Your task to perform on an android device: turn notification dots on Image 0: 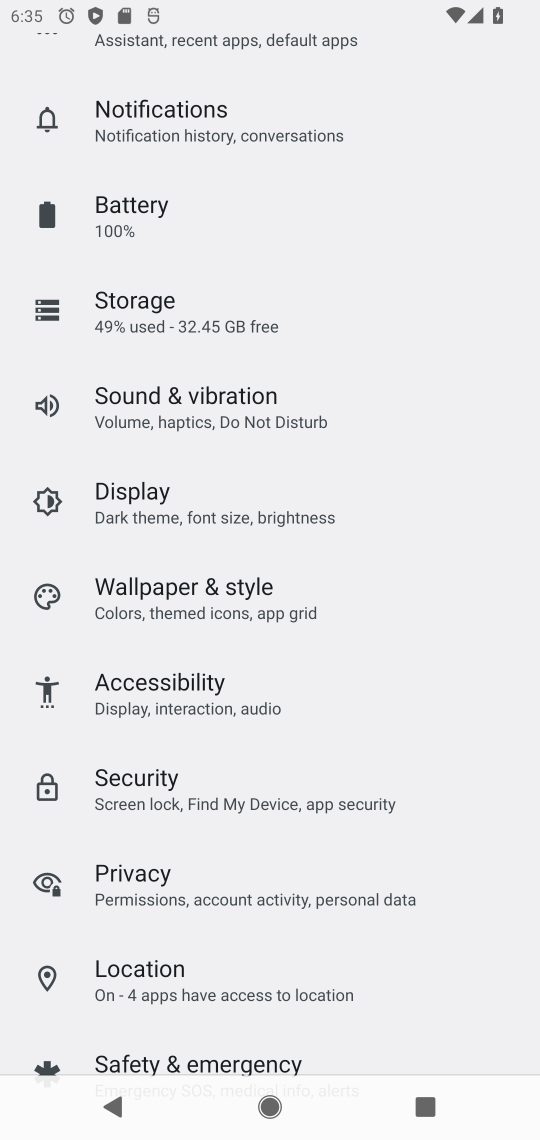
Step 0: click (172, 128)
Your task to perform on an android device: turn notification dots on Image 1: 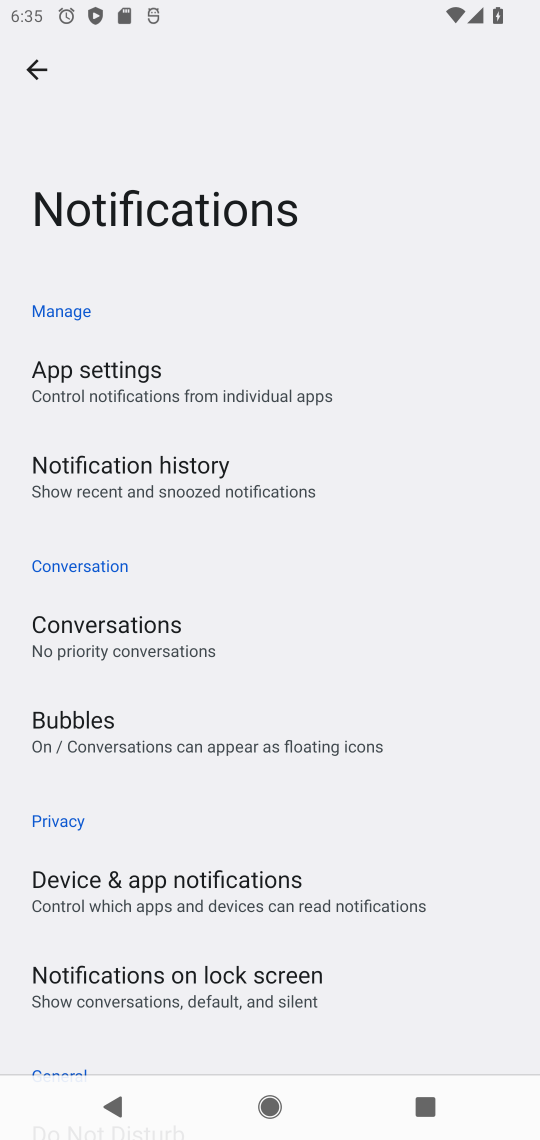
Step 1: task complete